Your task to perform on an android device: Open Reddit.com Image 0: 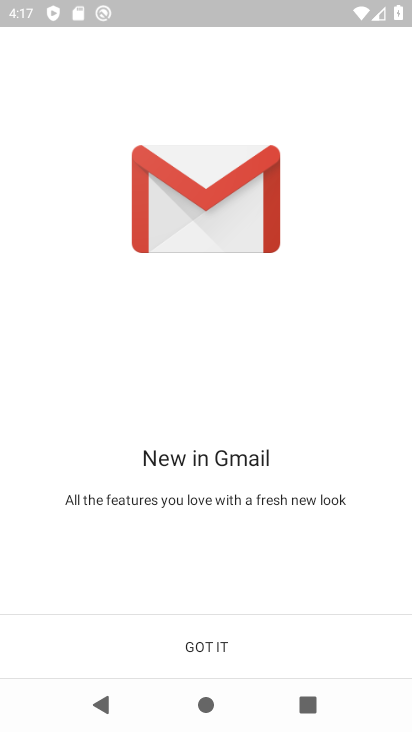
Step 0: press home button
Your task to perform on an android device: Open Reddit.com Image 1: 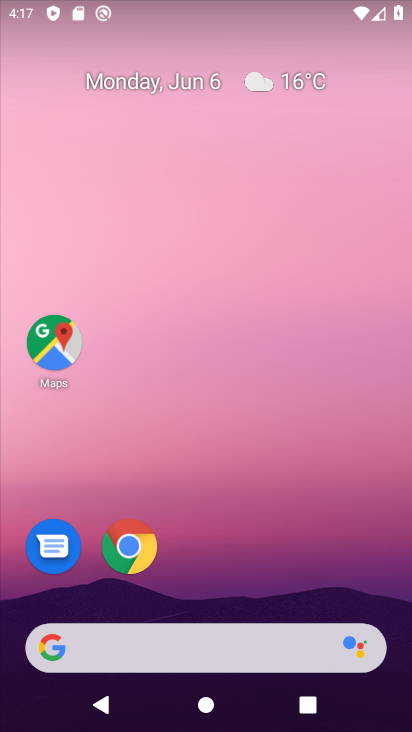
Step 1: drag from (219, 614) to (298, 77)
Your task to perform on an android device: Open Reddit.com Image 2: 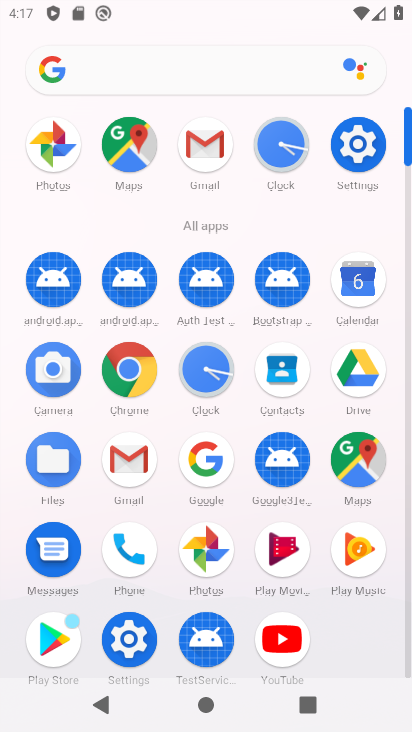
Step 2: click (120, 366)
Your task to perform on an android device: Open Reddit.com Image 3: 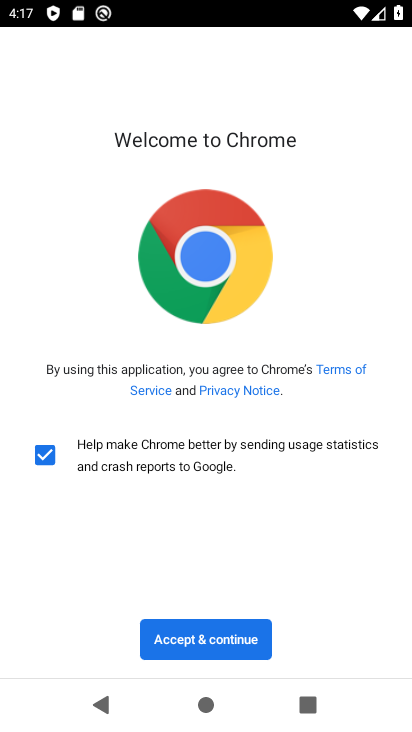
Step 3: click (222, 645)
Your task to perform on an android device: Open Reddit.com Image 4: 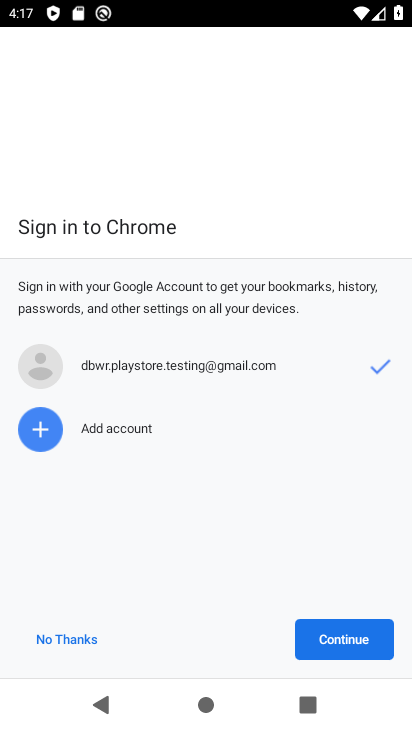
Step 4: click (372, 645)
Your task to perform on an android device: Open Reddit.com Image 5: 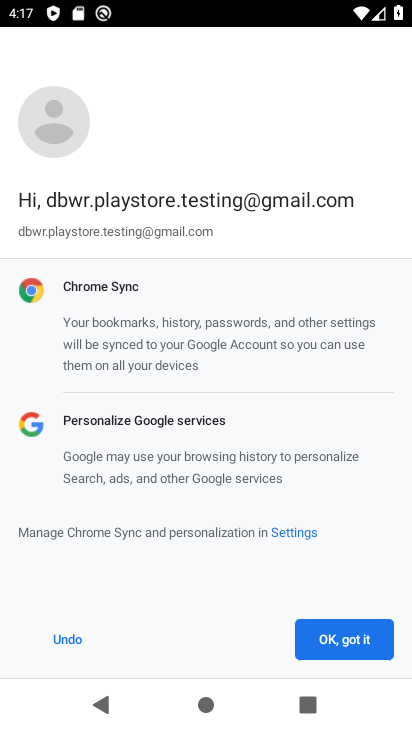
Step 5: click (368, 624)
Your task to perform on an android device: Open Reddit.com Image 6: 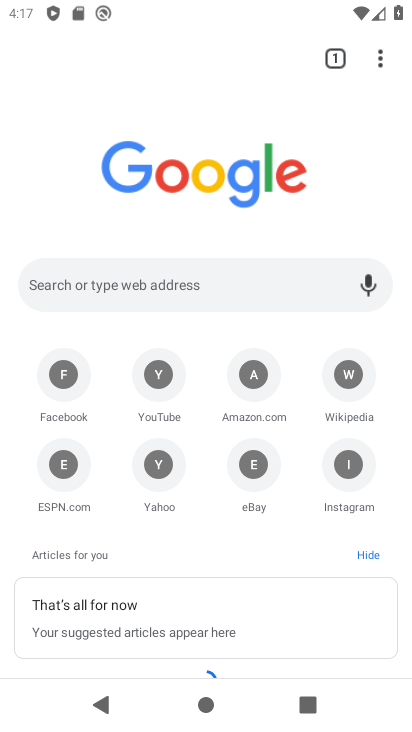
Step 6: click (154, 294)
Your task to perform on an android device: Open Reddit.com Image 7: 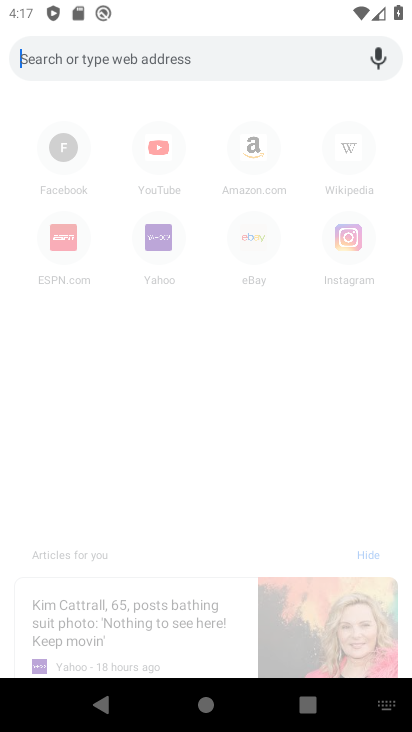
Step 7: type "reddit"
Your task to perform on an android device: Open Reddit.com Image 8: 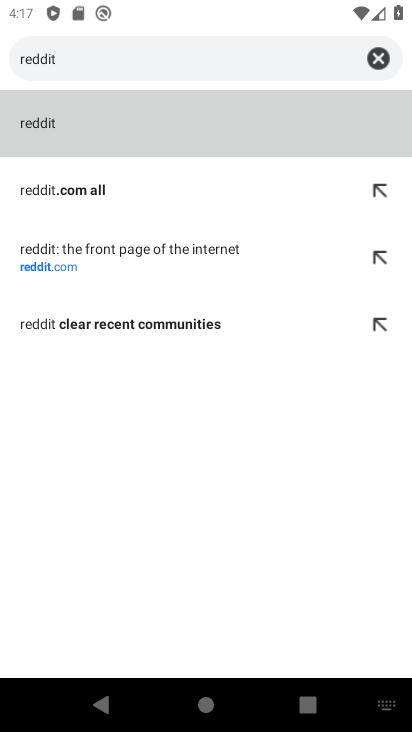
Step 8: click (145, 256)
Your task to perform on an android device: Open Reddit.com Image 9: 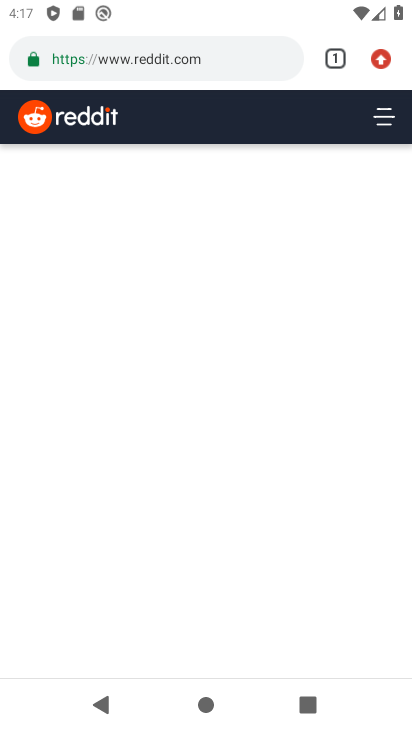
Step 9: task complete